Your task to perform on an android device: Open Google Maps Image 0: 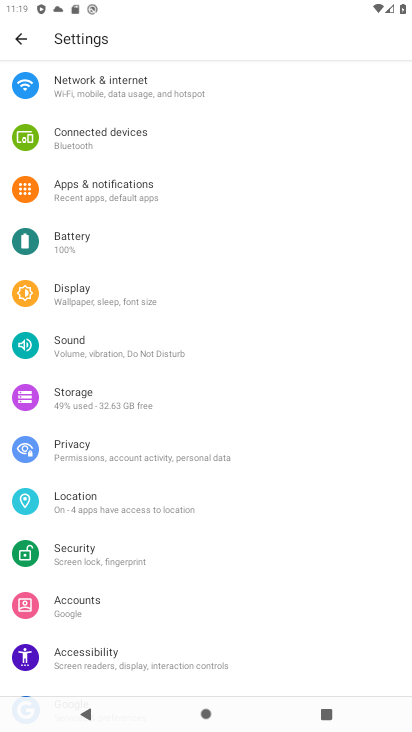
Step 0: press home button
Your task to perform on an android device: Open Google Maps Image 1: 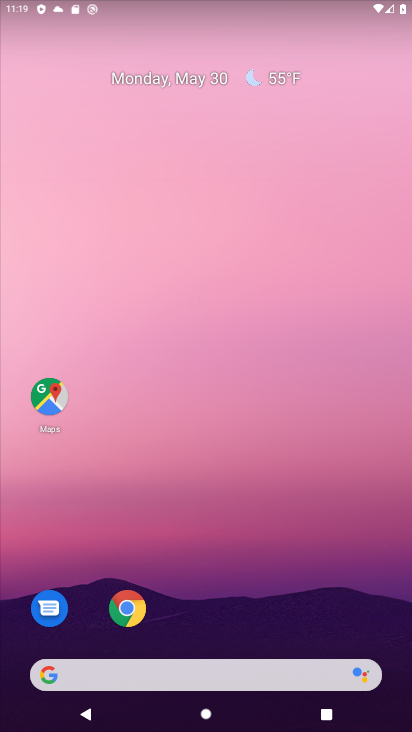
Step 1: click (42, 398)
Your task to perform on an android device: Open Google Maps Image 2: 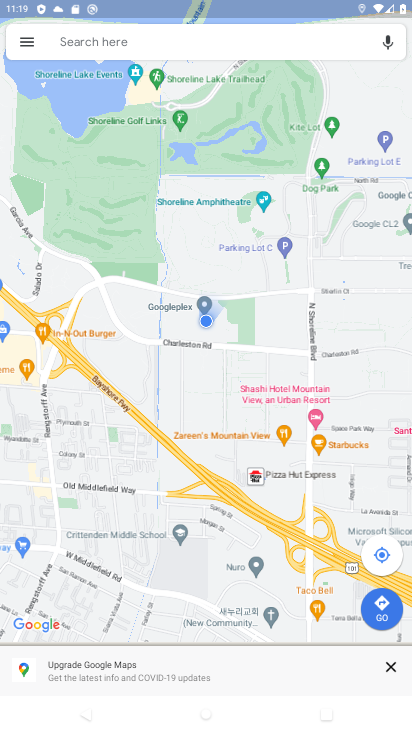
Step 2: task complete